Your task to perform on an android device: Go to Yahoo.com Image 0: 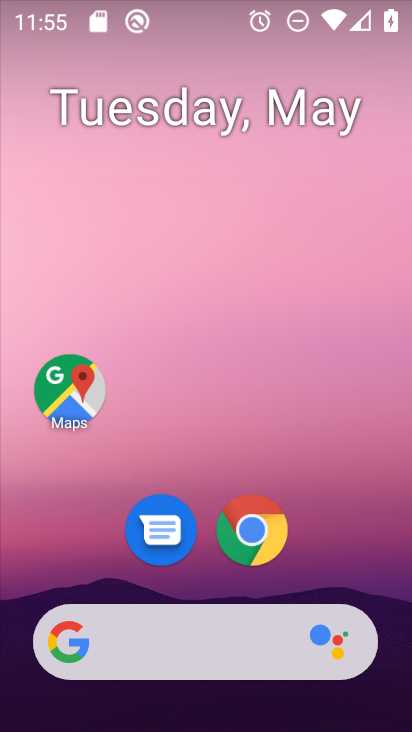
Step 0: click (260, 528)
Your task to perform on an android device: Go to Yahoo.com Image 1: 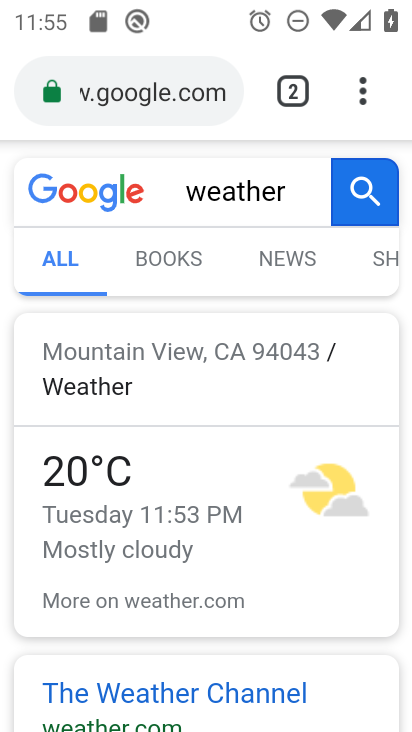
Step 1: click (160, 101)
Your task to perform on an android device: Go to Yahoo.com Image 2: 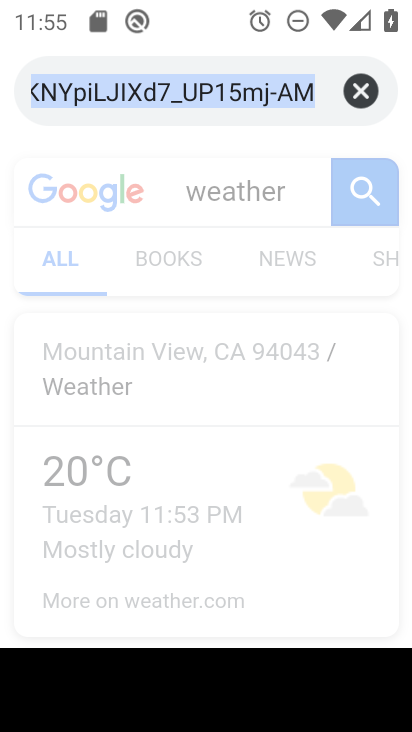
Step 2: type "yahoo.com"
Your task to perform on an android device: Go to Yahoo.com Image 3: 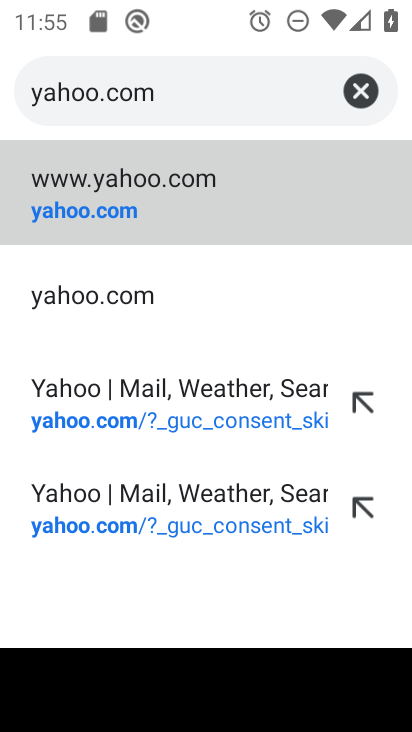
Step 3: click (113, 208)
Your task to perform on an android device: Go to Yahoo.com Image 4: 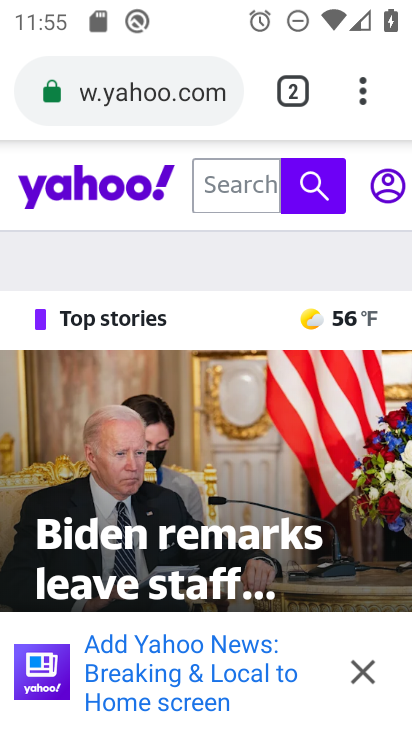
Step 4: task complete